Your task to perform on an android device: Open wifi settings Image 0: 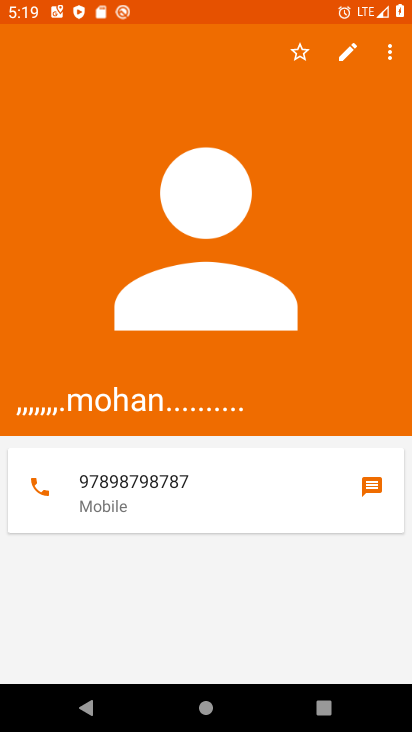
Step 0: press home button
Your task to perform on an android device: Open wifi settings Image 1: 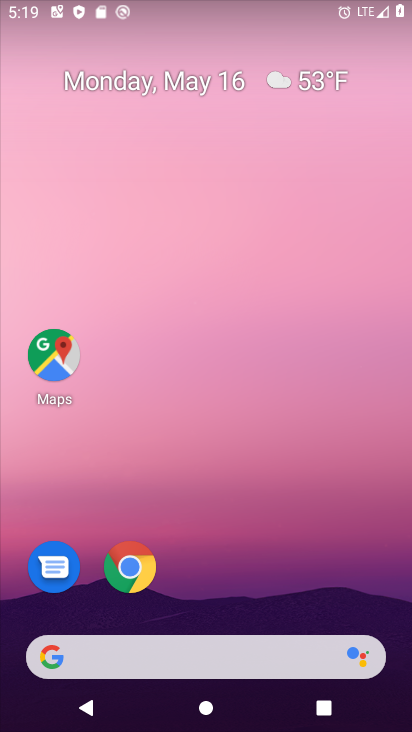
Step 1: drag from (309, 641) to (282, 3)
Your task to perform on an android device: Open wifi settings Image 2: 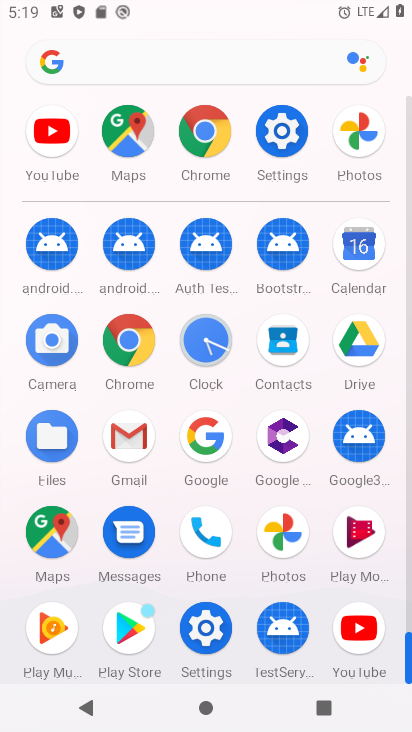
Step 2: click (274, 141)
Your task to perform on an android device: Open wifi settings Image 3: 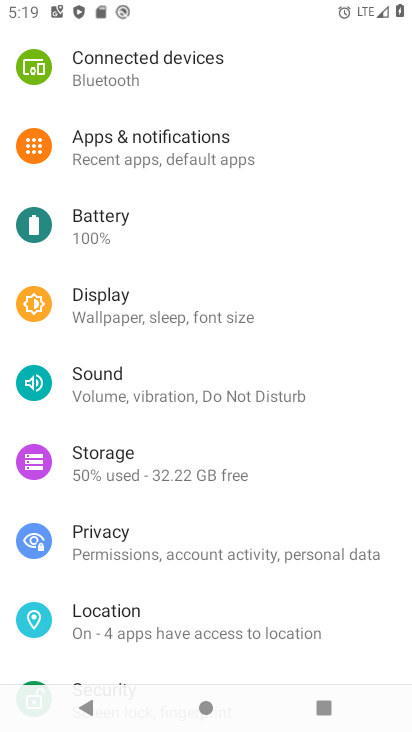
Step 3: drag from (245, 250) to (256, 657)
Your task to perform on an android device: Open wifi settings Image 4: 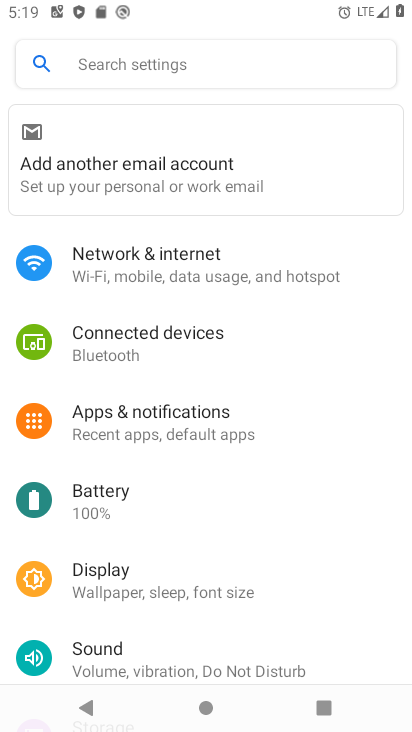
Step 4: click (215, 275)
Your task to perform on an android device: Open wifi settings Image 5: 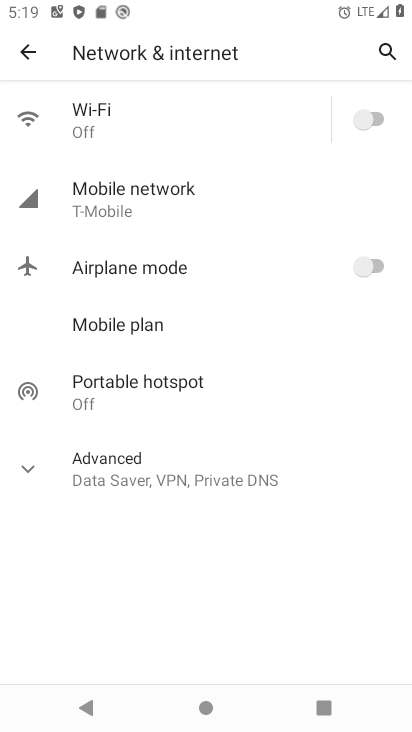
Step 5: click (226, 125)
Your task to perform on an android device: Open wifi settings Image 6: 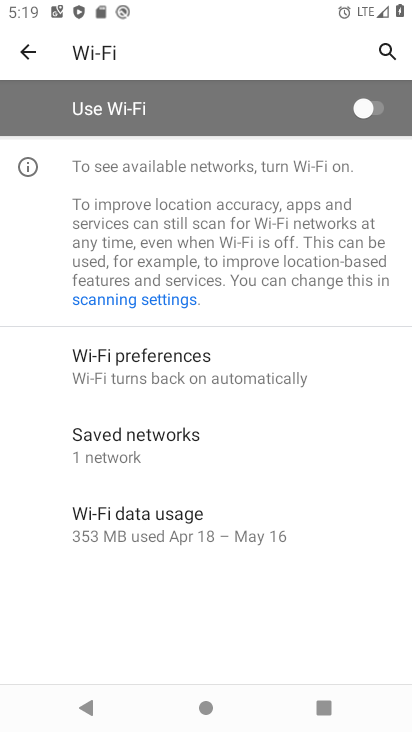
Step 6: task complete